Your task to perform on an android device: Go to Reddit.com Image 0: 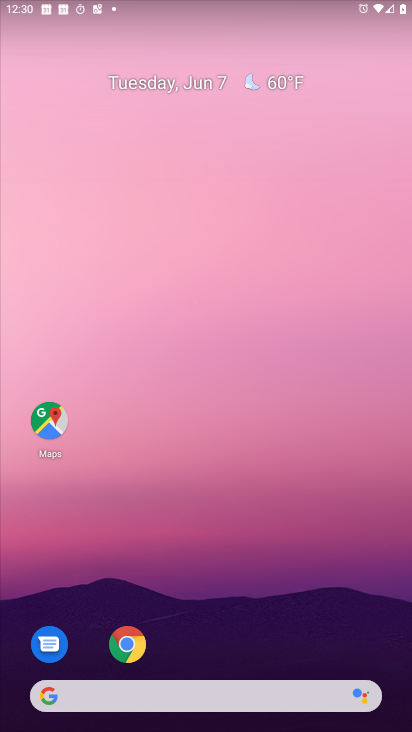
Step 0: click (132, 651)
Your task to perform on an android device: Go to Reddit.com Image 1: 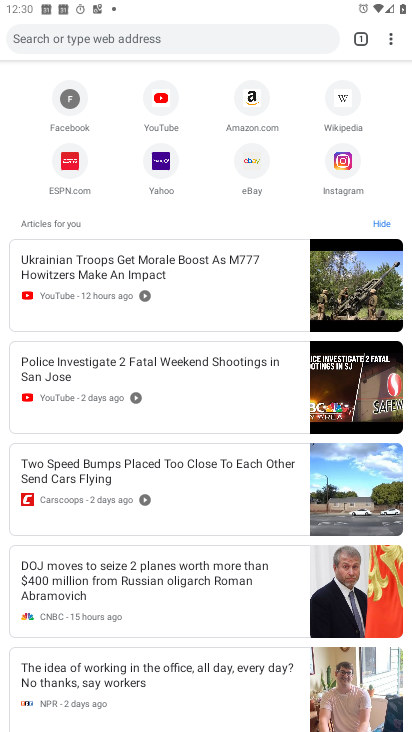
Step 1: click (225, 41)
Your task to perform on an android device: Go to Reddit.com Image 2: 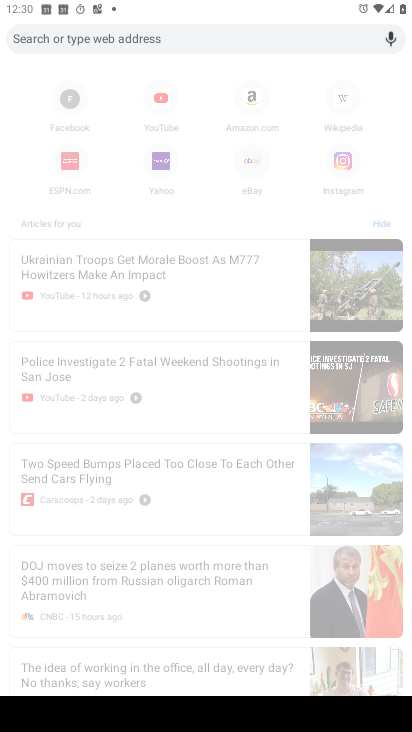
Step 2: type "reddit.com"
Your task to perform on an android device: Go to Reddit.com Image 3: 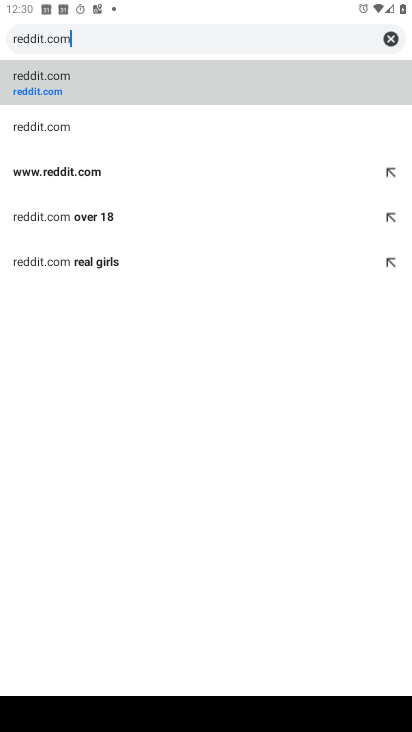
Step 3: click (67, 92)
Your task to perform on an android device: Go to Reddit.com Image 4: 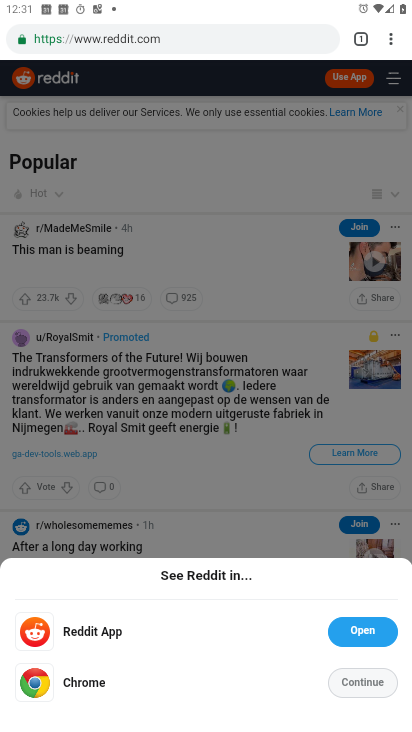
Step 4: click (373, 684)
Your task to perform on an android device: Go to Reddit.com Image 5: 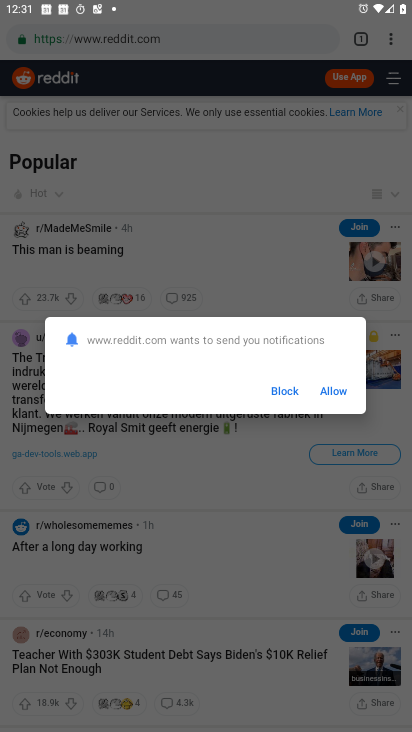
Step 5: click (291, 400)
Your task to perform on an android device: Go to Reddit.com Image 6: 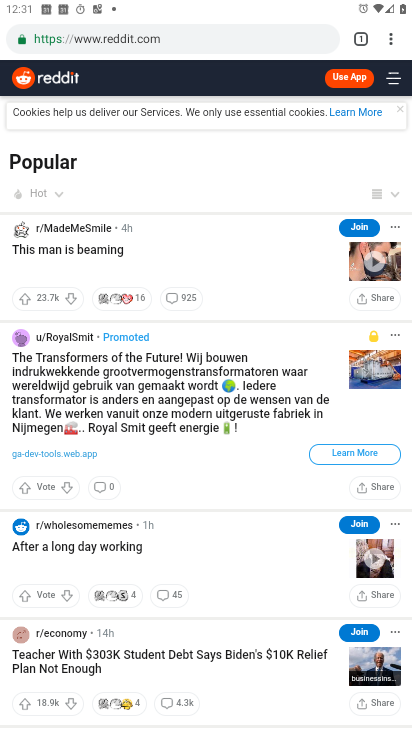
Step 6: task complete